Your task to perform on an android device: Open settings Image 0: 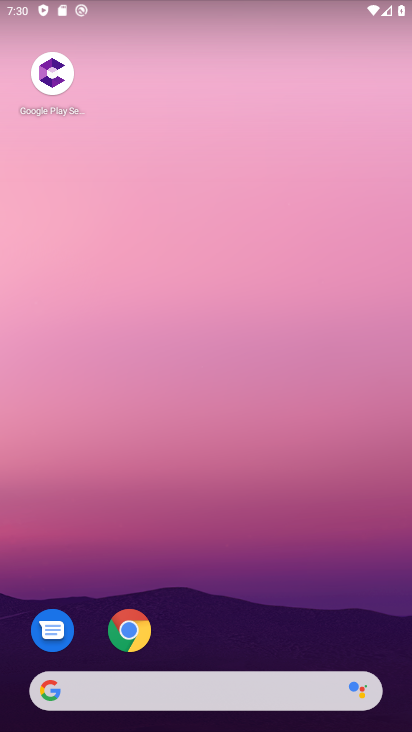
Step 0: drag from (224, 689) to (243, 117)
Your task to perform on an android device: Open settings Image 1: 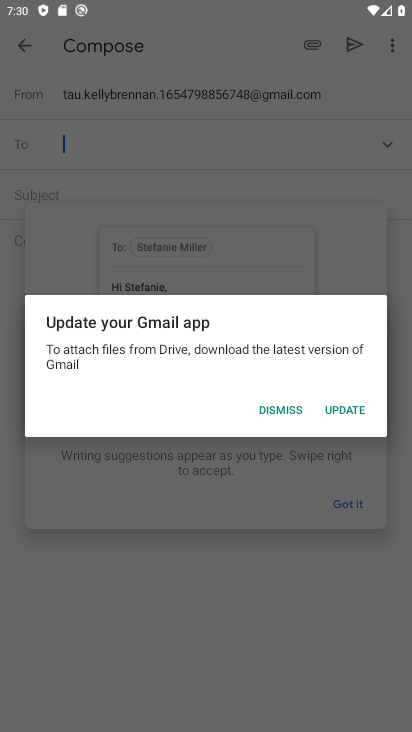
Step 1: press home button
Your task to perform on an android device: Open settings Image 2: 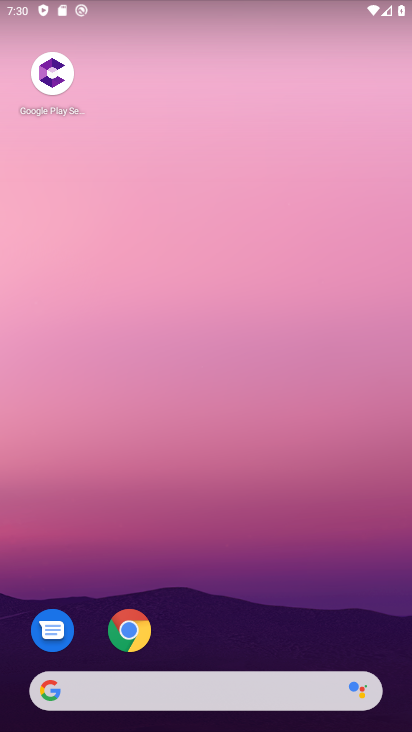
Step 2: drag from (208, 684) to (245, 137)
Your task to perform on an android device: Open settings Image 3: 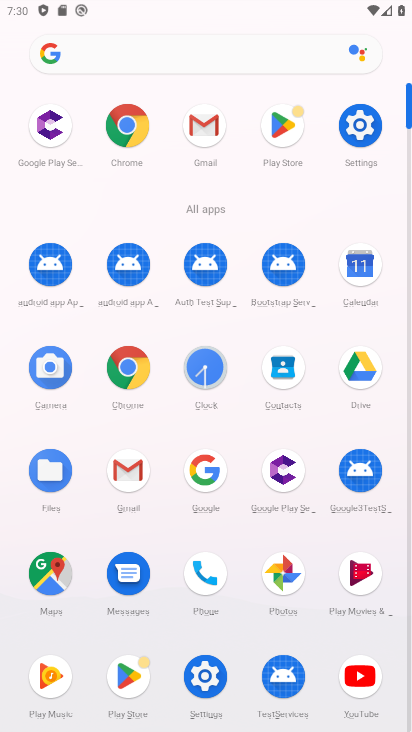
Step 3: click (360, 121)
Your task to perform on an android device: Open settings Image 4: 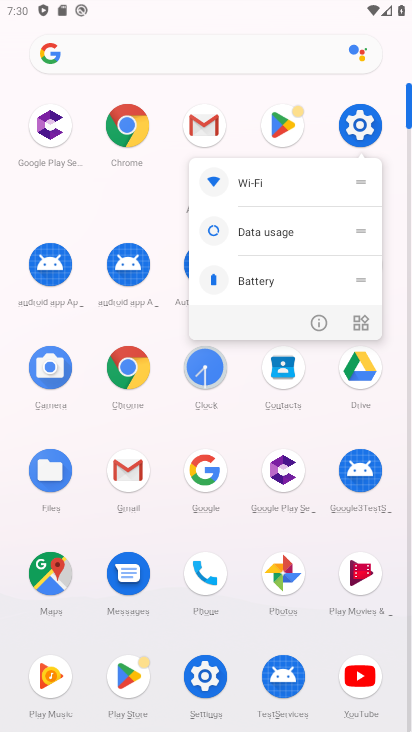
Step 4: click (360, 123)
Your task to perform on an android device: Open settings Image 5: 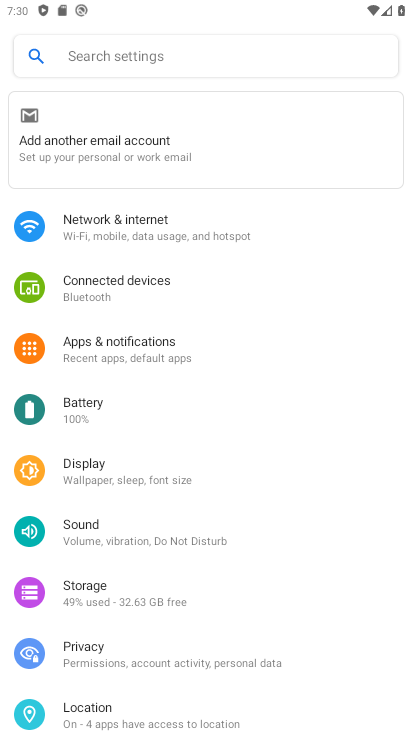
Step 5: task complete